Your task to perform on an android device: open app "Walmart Shopping & Grocery" (install if not already installed) Image 0: 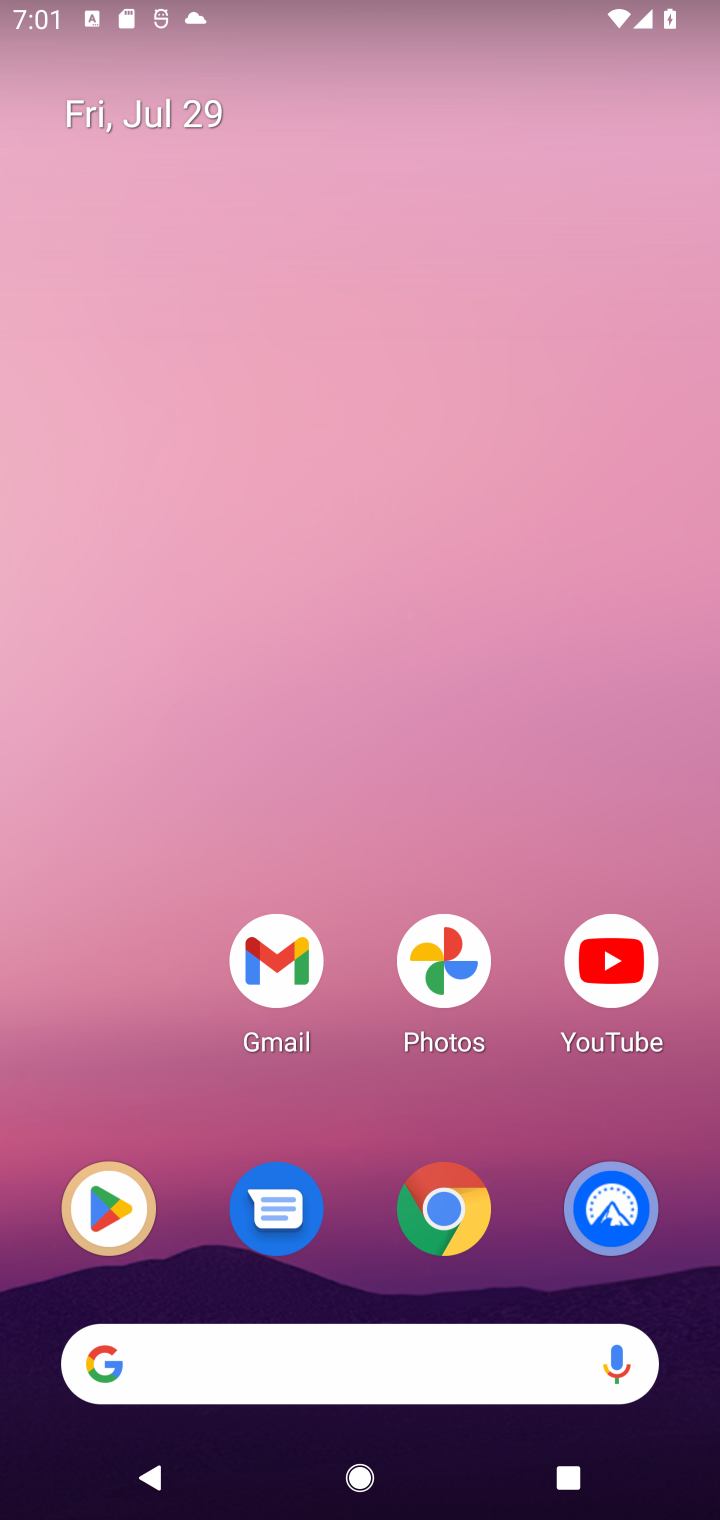
Step 0: press home button
Your task to perform on an android device: open app "Walmart Shopping & Grocery" (install if not already installed) Image 1: 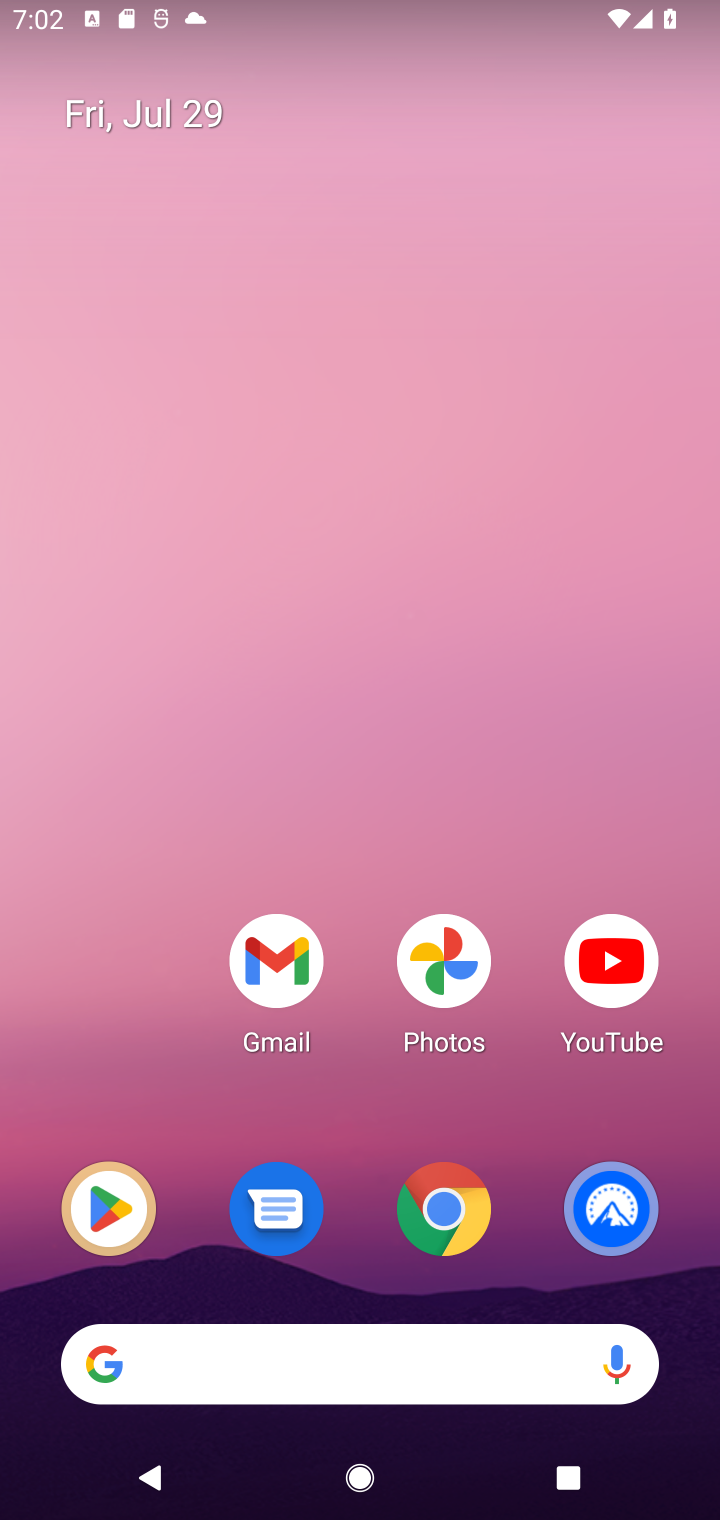
Step 1: click (107, 1212)
Your task to perform on an android device: open app "Walmart Shopping & Grocery" (install if not already installed) Image 2: 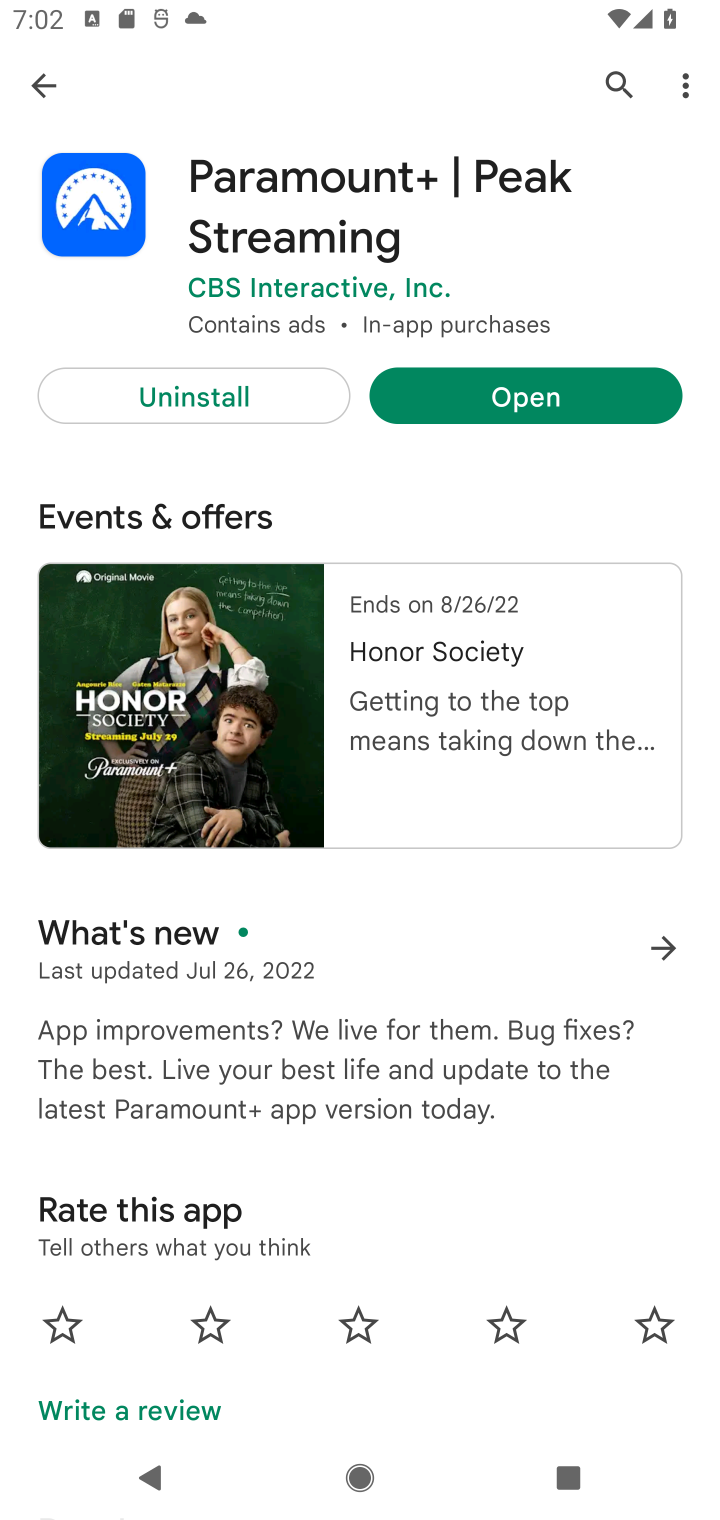
Step 2: click (607, 69)
Your task to perform on an android device: open app "Walmart Shopping & Grocery" (install if not already installed) Image 3: 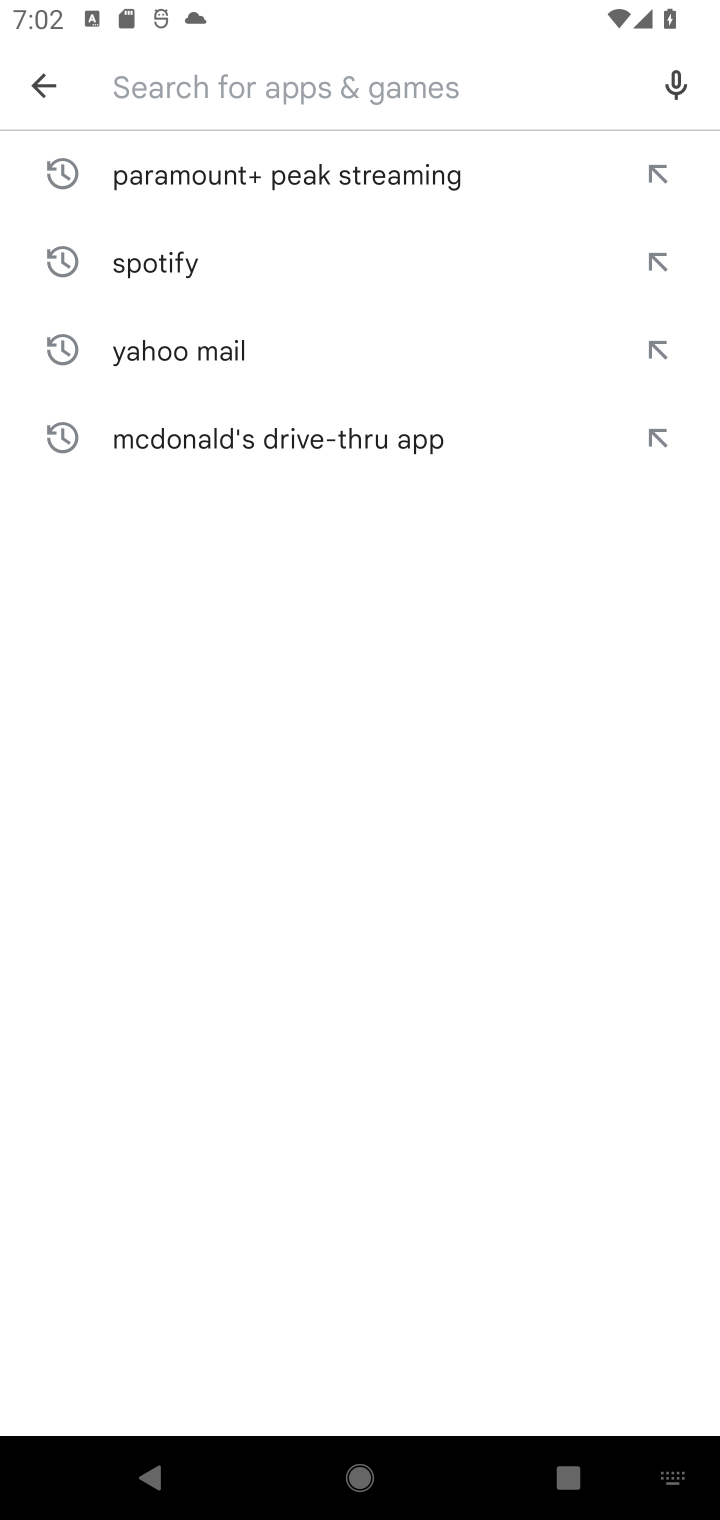
Step 3: type "Walmart Shopping & Grocery"
Your task to perform on an android device: open app "Walmart Shopping & Grocery" (install if not already installed) Image 4: 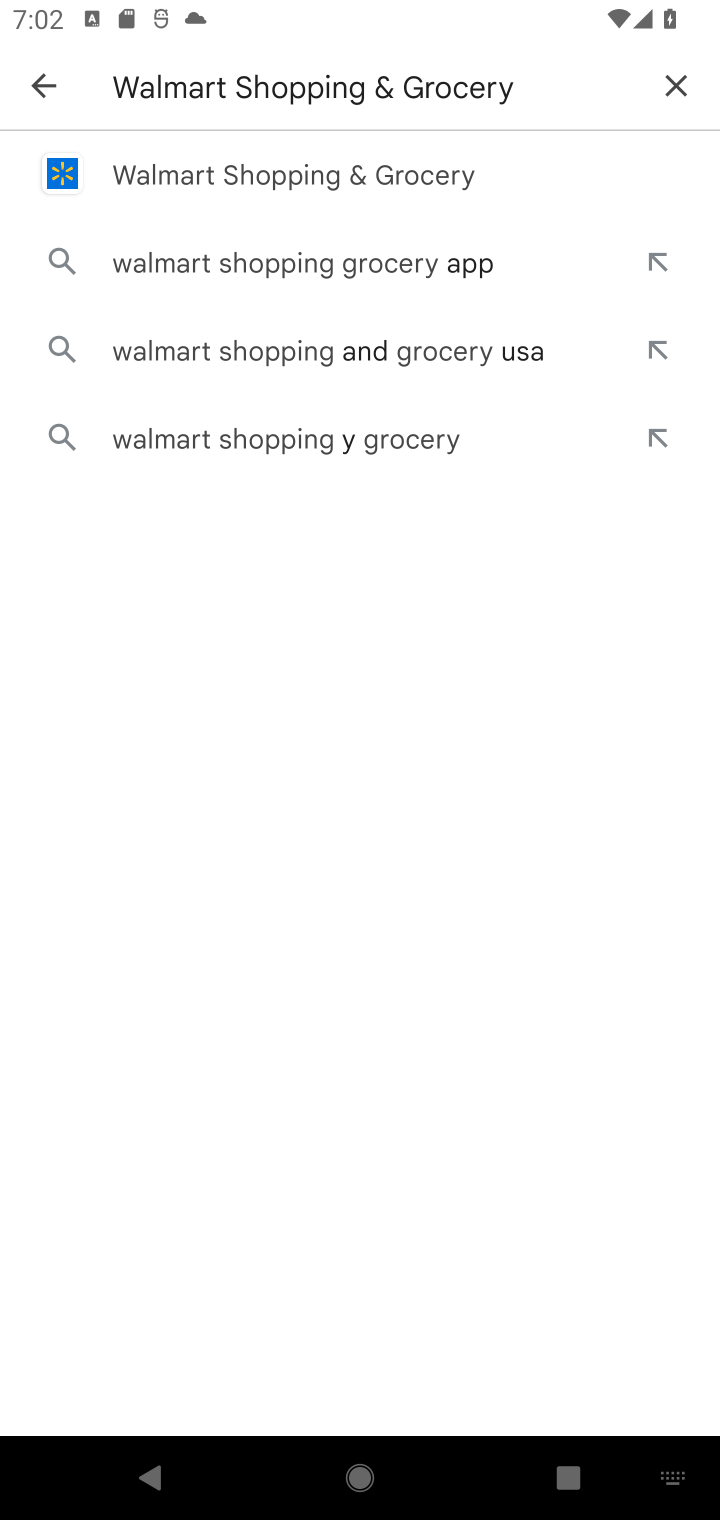
Step 4: click (255, 183)
Your task to perform on an android device: open app "Walmart Shopping & Grocery" (install if not already installed) Image 5: 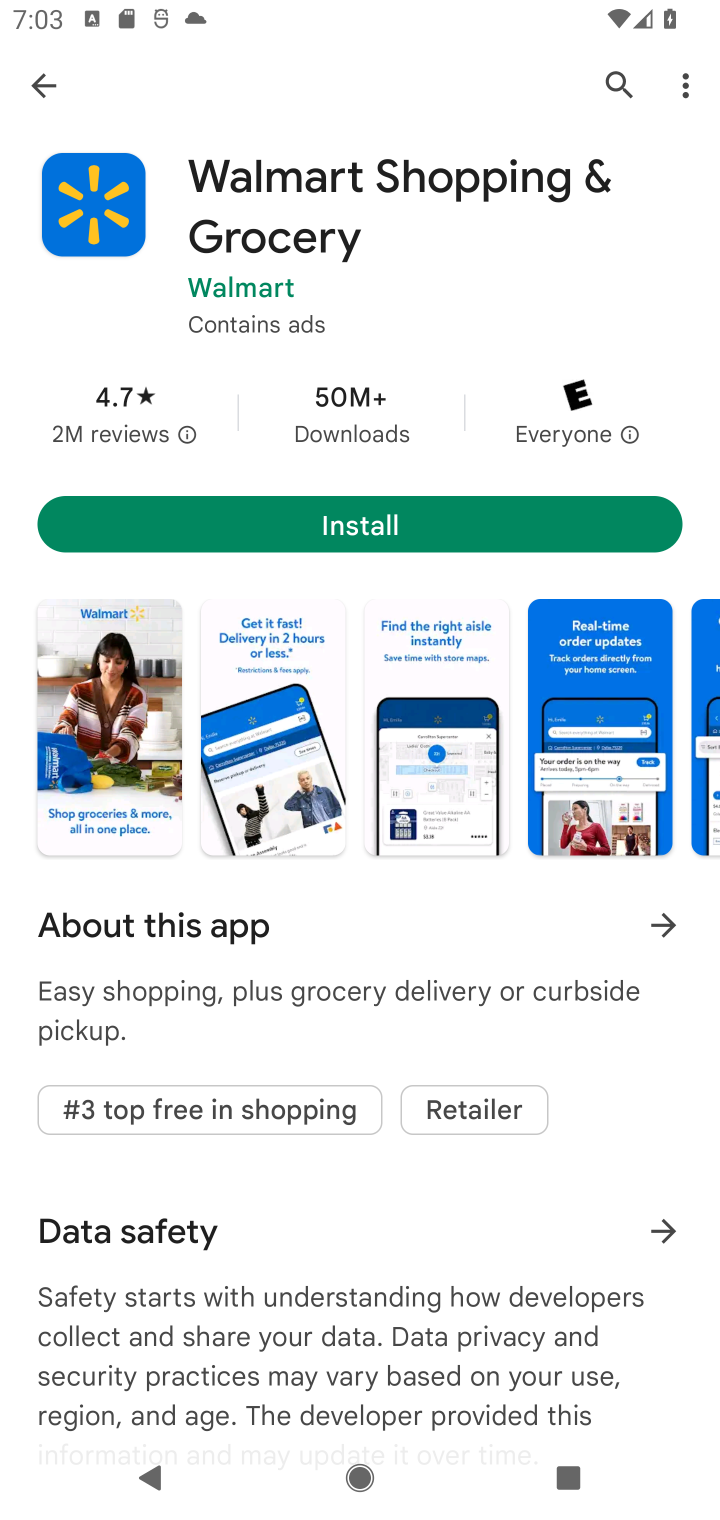
Step 5: click (356, 523)
Your task to perform on an android device: open app "Walmart Shopping & Grocery" (install if not already installed) Image 6: 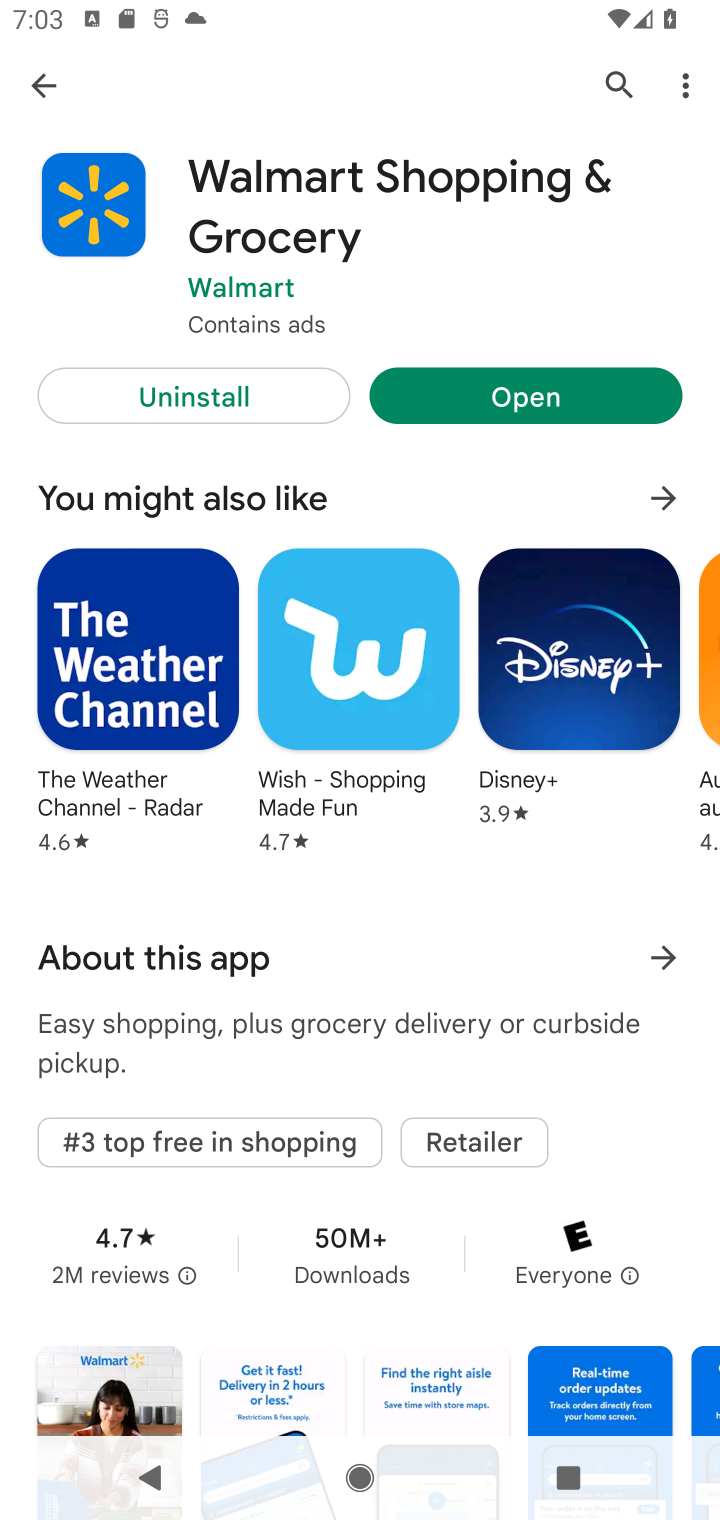
Step 6: click (562, 393)
Your task to perform on an android device: open app "Walmart Shopping & Grocery" (install if not already installed) Image 7: 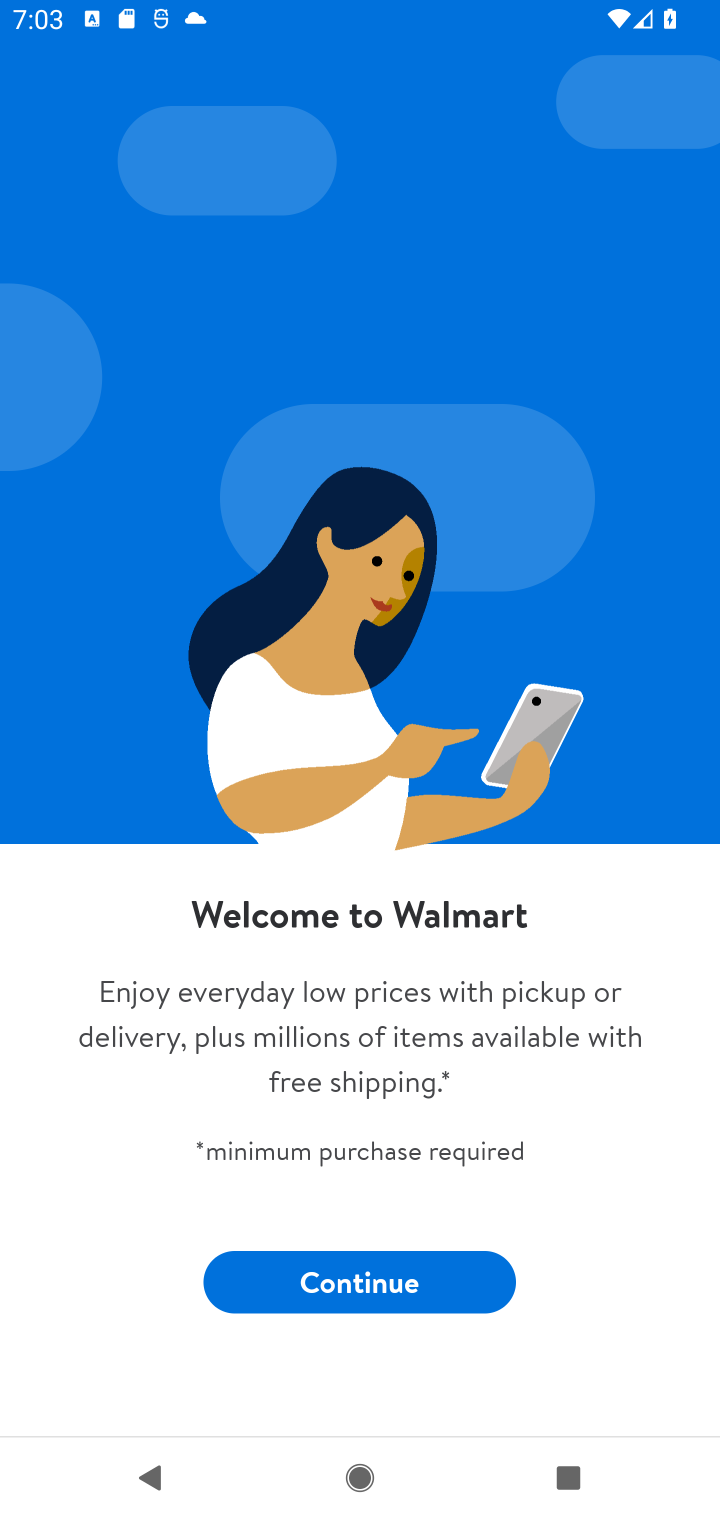
Step 7: task complete